Your task to perform on an android device: Open display settings Image 0: 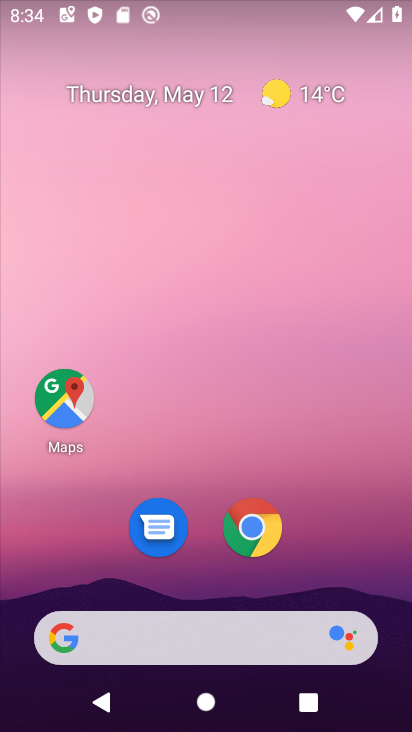
Step 0: drag from (327, 569) to (328, 98)
Your task to perform on an android device: Open display settings Image 1: 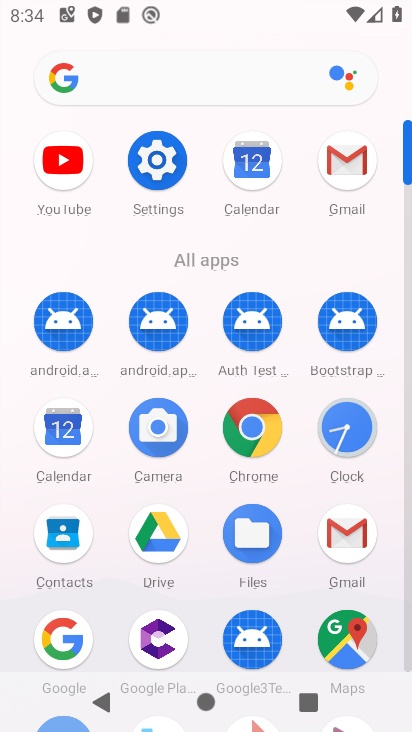
Step 1: click (164, 175)
Your task to perform on an android device: Open display settings Image 2: 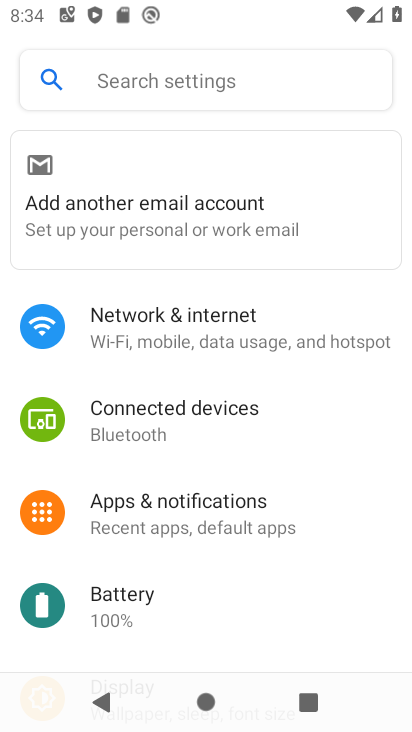
Step 2: drag from (233, 522) to (243, 358)
Your task to perform on an android device: Open display settings Image 3: 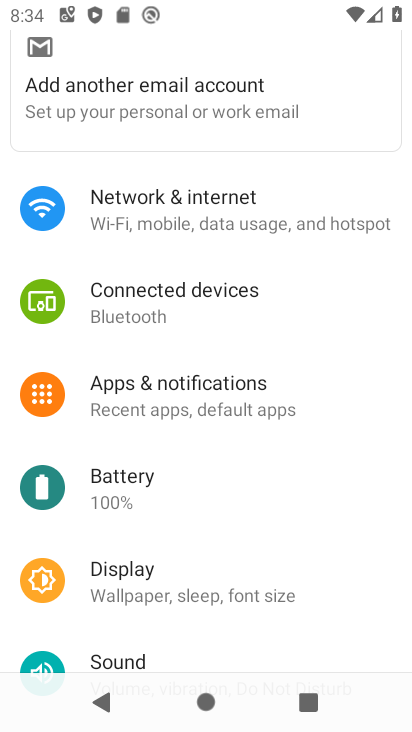
Step 3: click (197, 602)
Your task to perform on an android device: Open display settings Image 4: 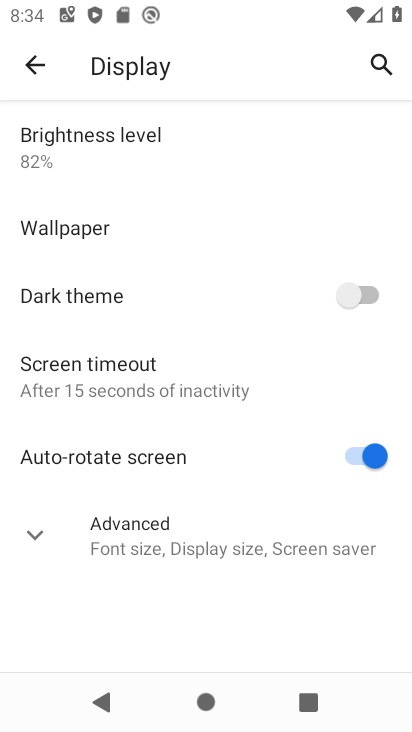
Step 4: task complete